Your task to perform on an android device: choose inbox layout in the gmail app Image 0: 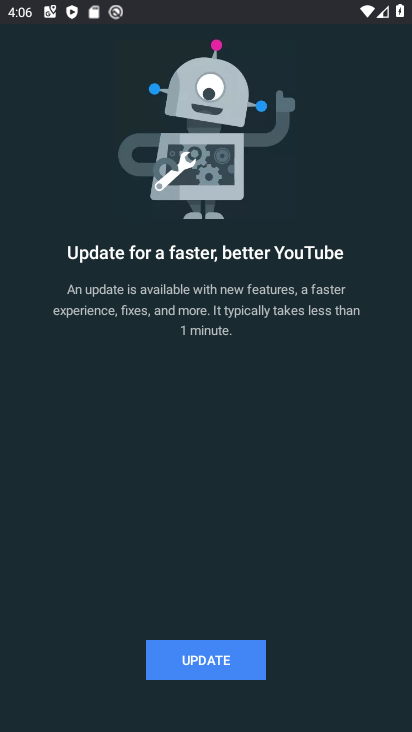
Step 0: press home button
Your task to perform on an android device: choose inbox layout in the gmail app Image 1: 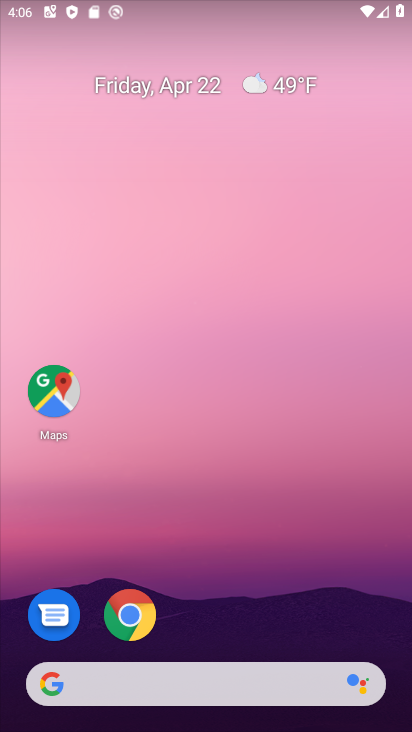
Step 1: drag from (218, 730) to (218, 158)
Your task to perform on an android device: choose inbox layout in the gmail app Image 2: 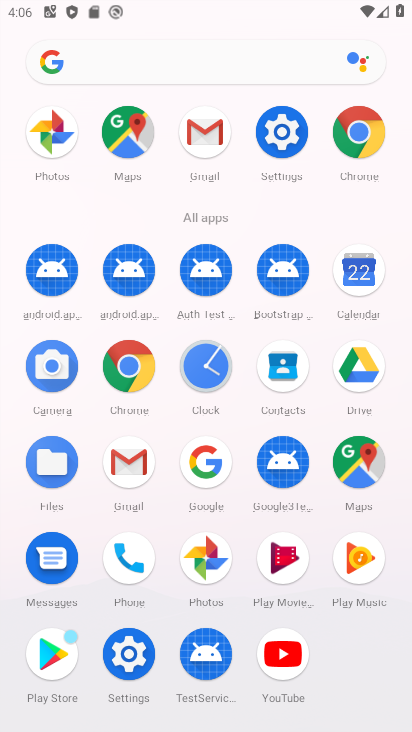
Step 2: click (198, 142)
Your task to perform on an android device: choose inbox layout in the gmail app Image 3: 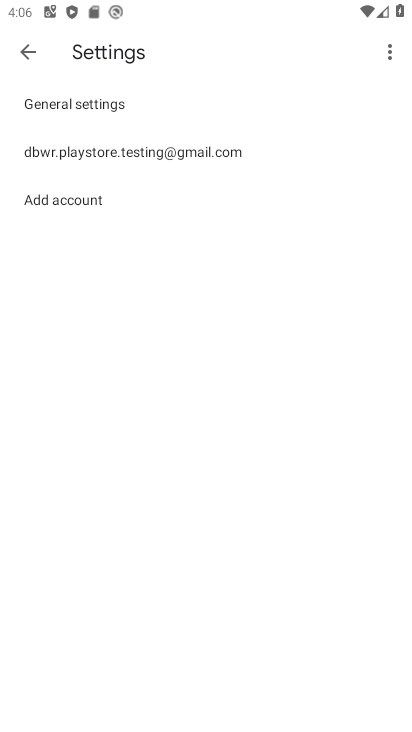
Step 3: click (163, 146)
Your task to perform on an android device: choose inbox layout in the gmail app Image 4: 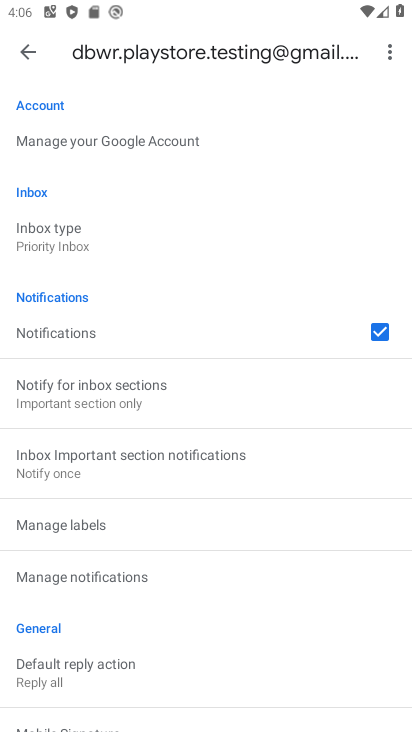
Step 4: click (55, 245)
Your task to perform on an android device: choose inbox layout in the gmail app Image 5: 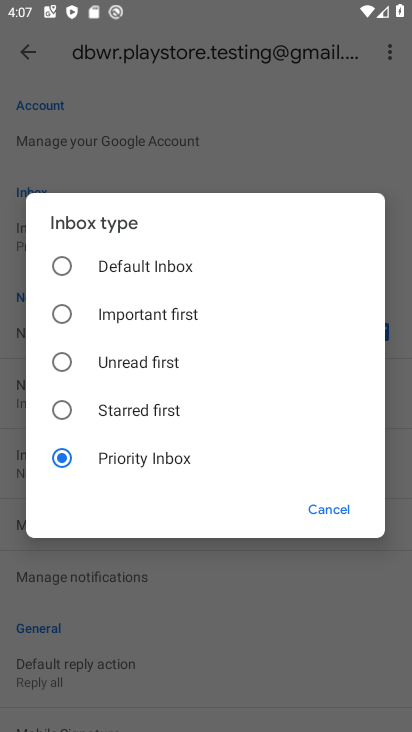
Step 5: click (60, 258)
Your task to perform on an android device: choose inbox layout in the gmail app Image 6: 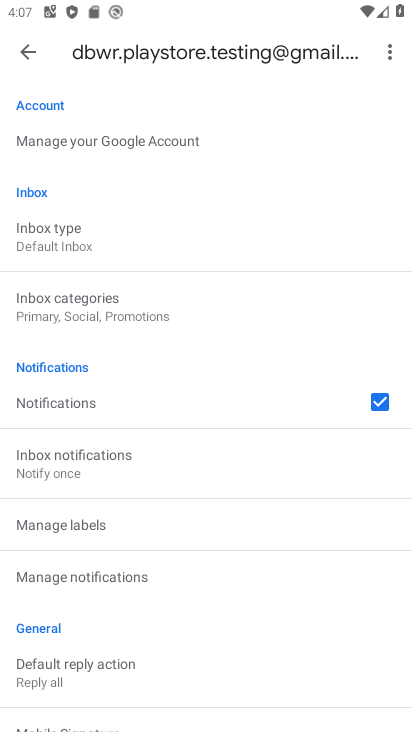
Step 6: task complete